Your task to perform on an android device: turn on showing notifications on the lock screen Image 0: 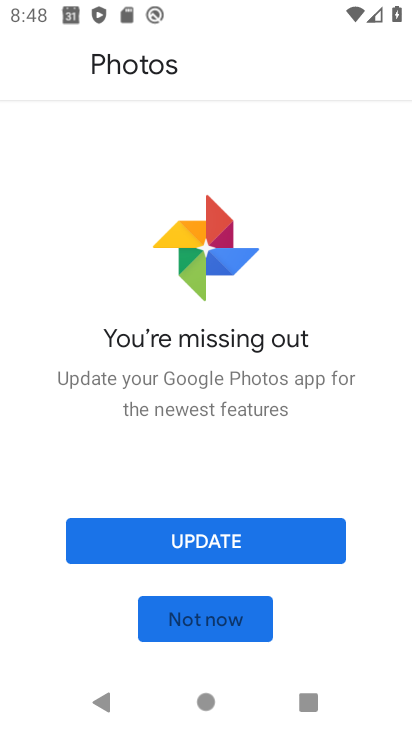
Step 0: press home button
Your task to perform on an android device: turn on showing notifications on the lock screen Image 1: 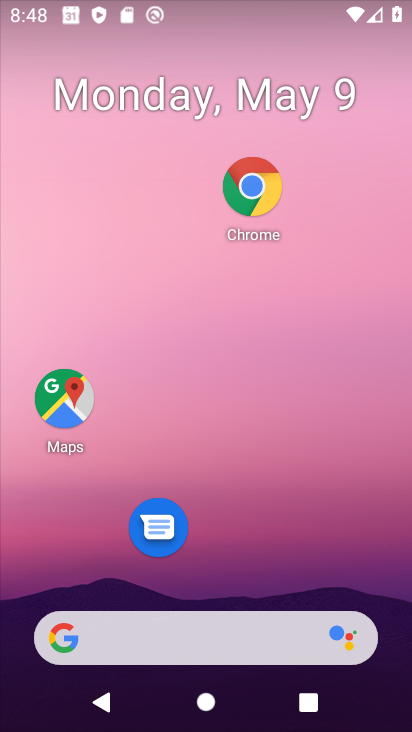
Step 1: drag from (223, 578) to (261, 151)
Your task to perform on an android device: turn on showing notifications on the lock screen Image 2: 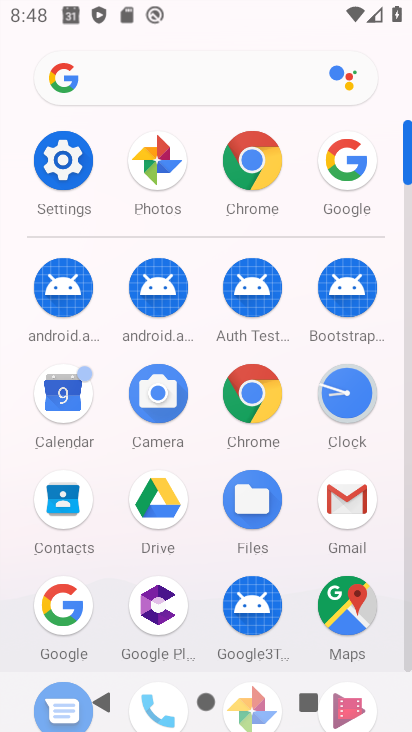
Step 2: click (65, 157)
Your task to perform on an android device: turn on showing notifications on the lock screen Image 3: 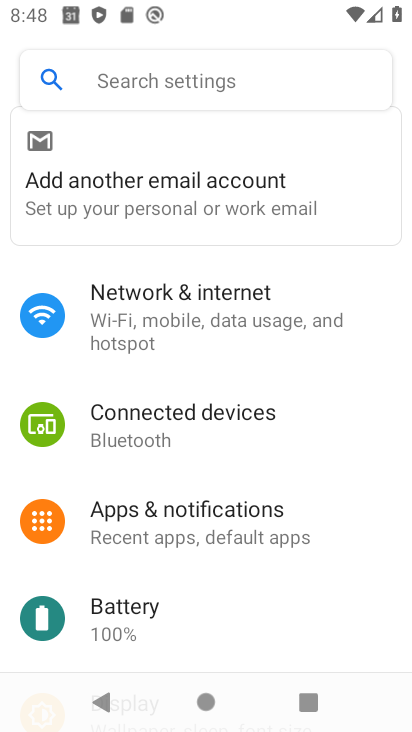
Step 3: click (184, 518)
Your task to perform on an android device: turn on showing notifications on the lock screen Image 4: 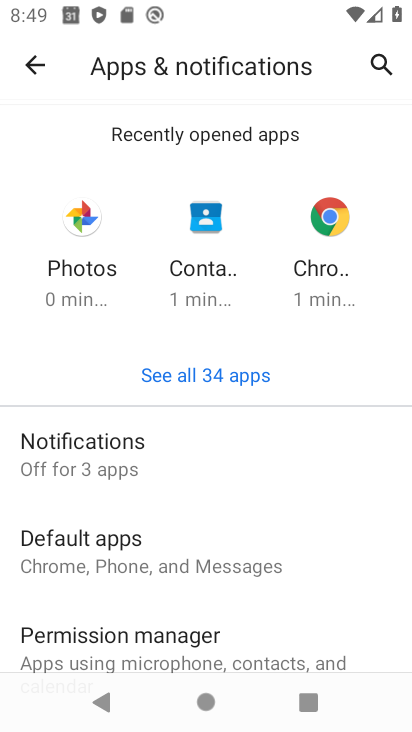
Step 4: click (150, 455)
Your task to perform on an android device: turn on showing notifications on the lock screen Image 5: 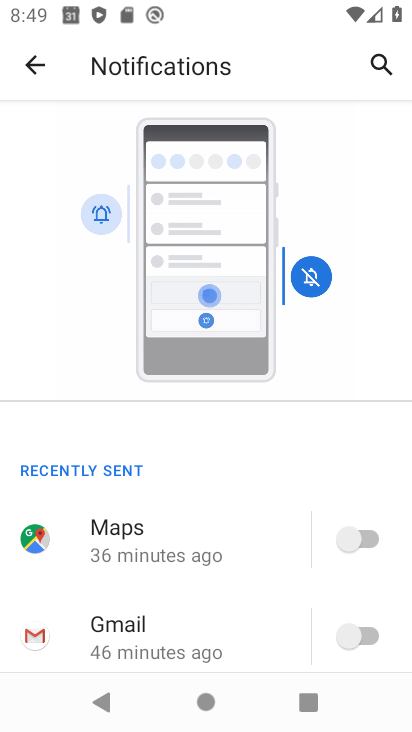
Step 5: drag from (216, 613) to (252, 171)
Your task to perform on an android device: turn on showing notifications on the lock screen Image 6: 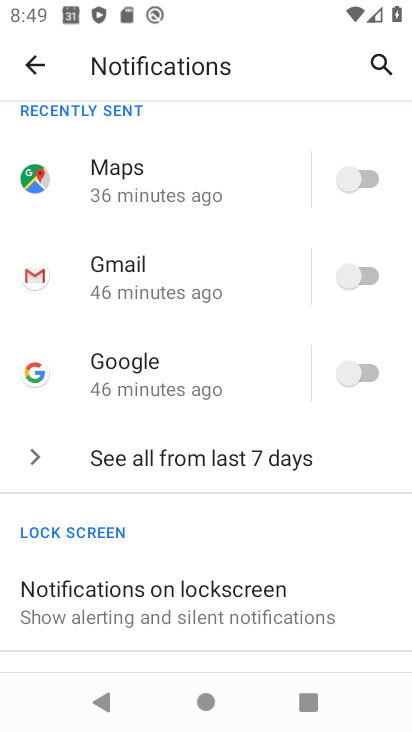
Step 6: click (201, 581)
Your task to perform on an android device: turn on showing notifications on the lock screen Image 7: 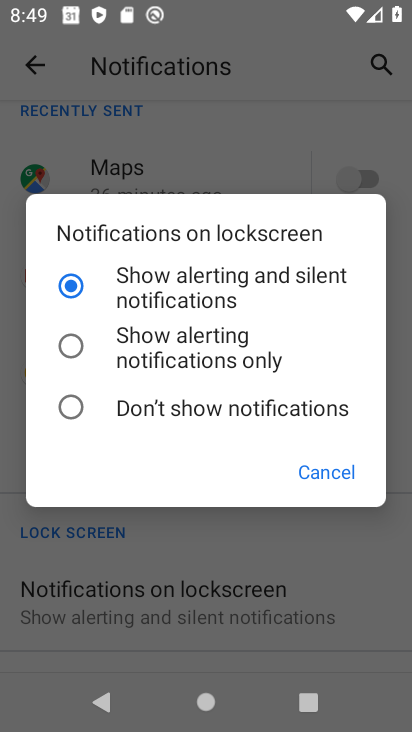
Step 7: click (71, 337)
Your task to perform on an android device: turn on showing notifications on the lock screen Image 8: 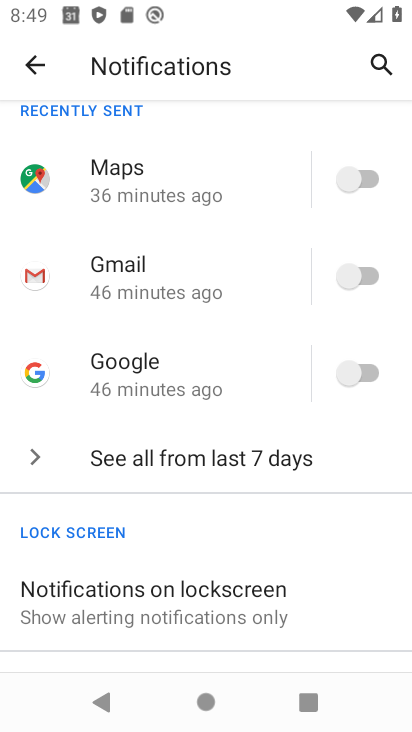
Step 8: task complete